Your task to perform on an android device: Open Wikipedia Image 0: 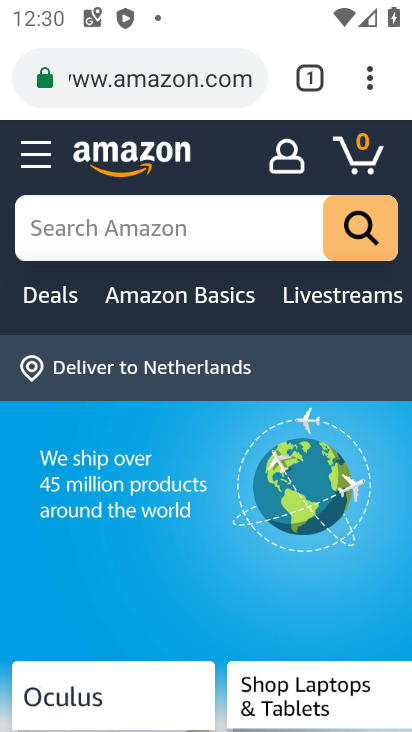
Step 0: press home button
Your task to perform on an android device: Open Wikipedia Image 1: 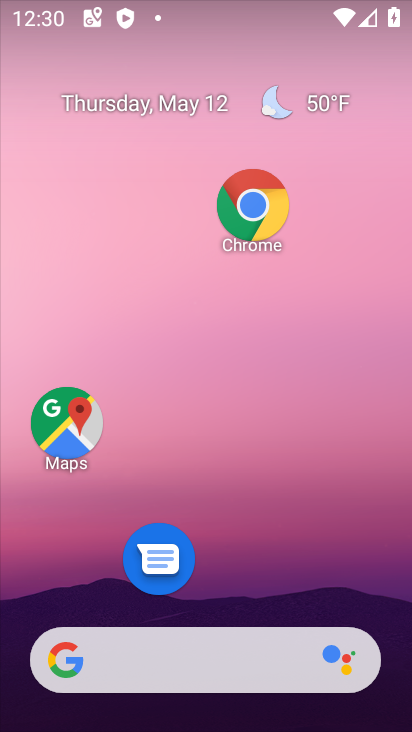
Step 1: drag from (248, 562) to (311, 124)
Your task to perform on an android device: Open Wikipedia Image 2: 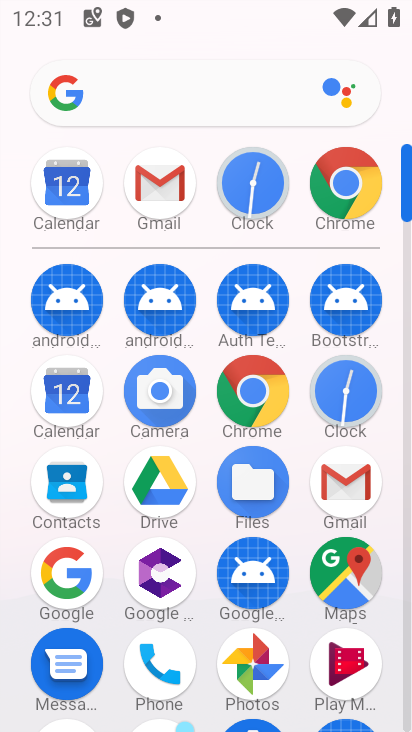
Step 2: drag from (299, 626) to (299, 319)
Your task to perform on an android device: Open Wikipedia Image 3: 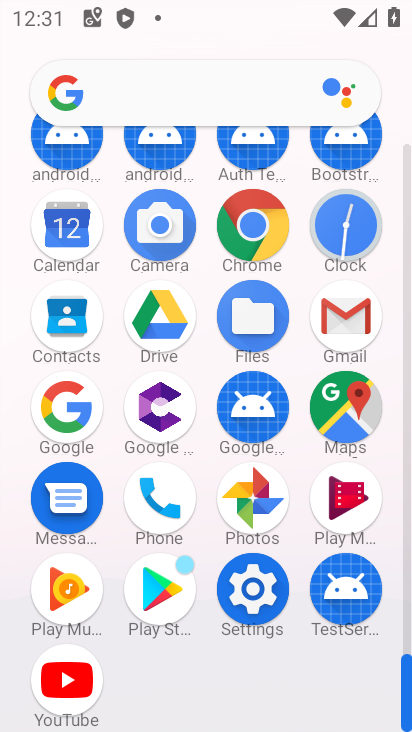
Step 3: click (252, 262)
Your task to perform on an android device: Open Wikipedia Image 4: 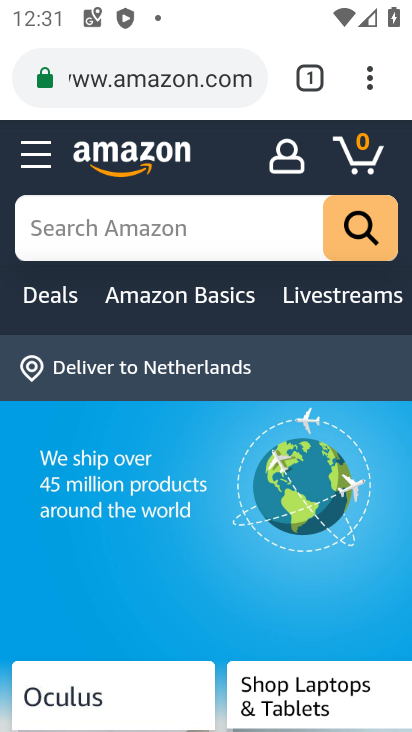
Step 4: press back button
Your task to perform on an android device: Open Wikipedia Image 5: 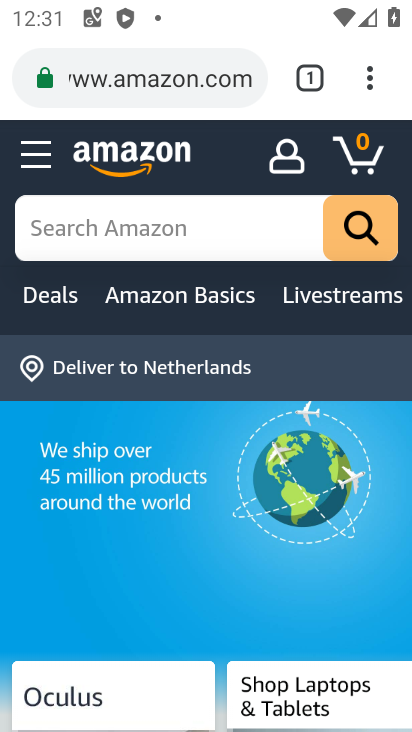
Step 5: press back button
Your task to perform on an android device: Open Wikipedia Image 6: 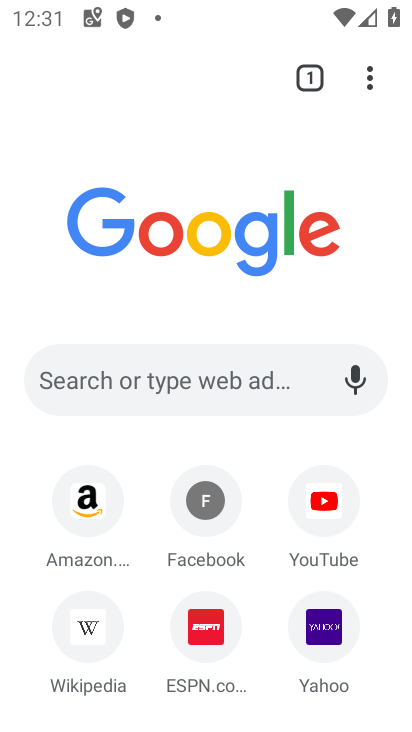
Step 6: click (91, 647)
Your task to perform on an android device: Open Wikipedia Image 7: 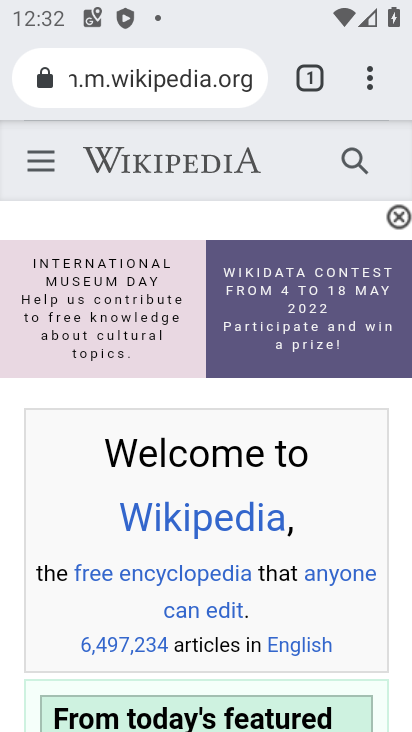
Step 7: task complete